Your task to perform on an android device: star an email in the gmail app Image 0: 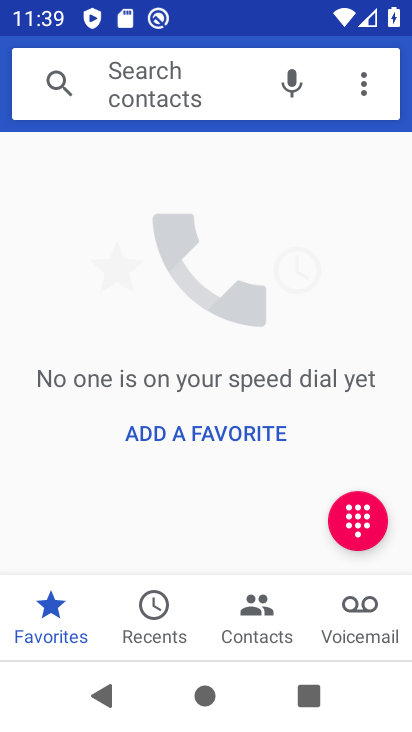
Step 0: drag from (354, 567) to (383, 165)
Your task to perform on an android device: star an email in the gmail app Image 1: 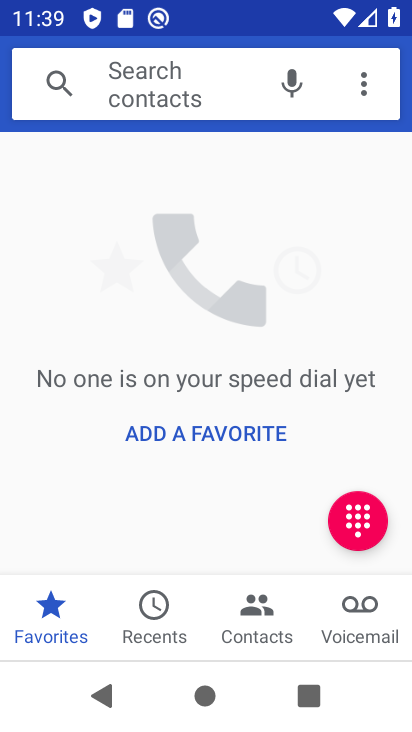
Step 1: press home button
Your task to perform on an android device: star an email in the gmail app Image 2: 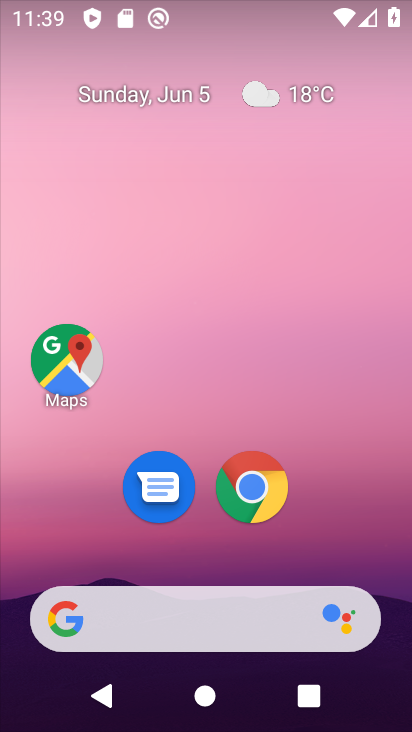
Step 2: drag from (356, 538) to (326, 148)
Your task to perform on an android device: star an email in the gmail app Image 3: 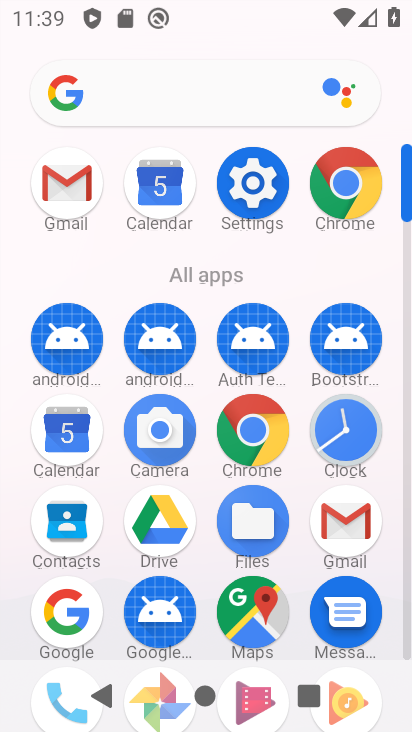
Step 3: click (335, 546)
Your task to perform on an android device: star an email in the gmail app Image 4: 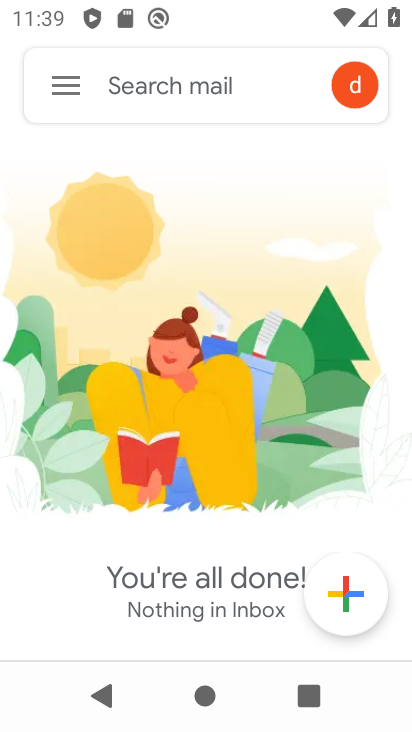
Step 4: click (60, 93)
Your task to perform on an android device: star an email in the gmail app Image 5: 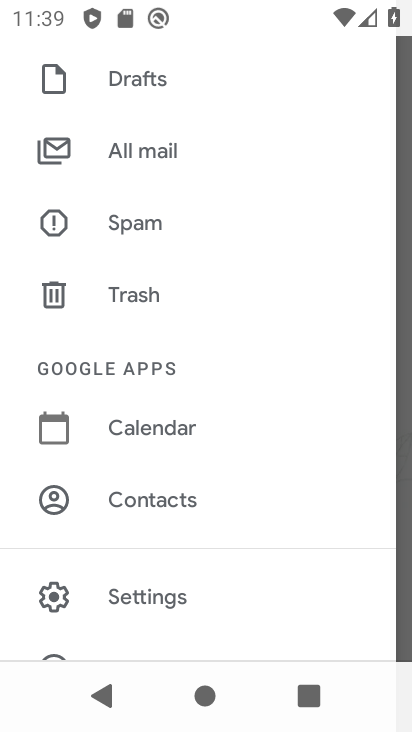
Step 5: drag from (174, 240) to (201, 547)
Your task to perform on an android device: star an email in the gmail app Image 6: 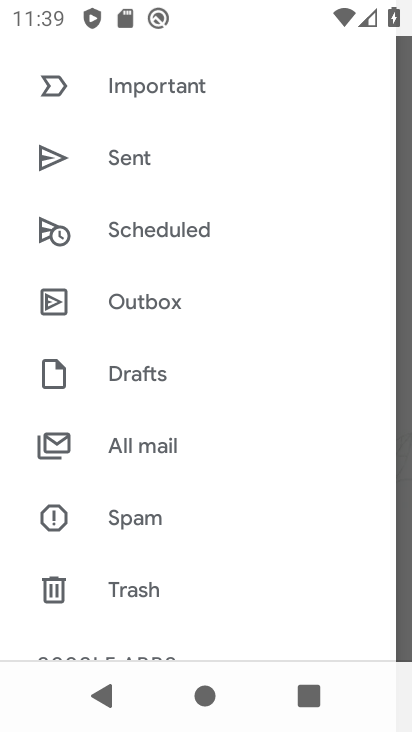
Step 6: click (160, 467)
Your task to perform on an android device: star an email in the gmail app Image 7: 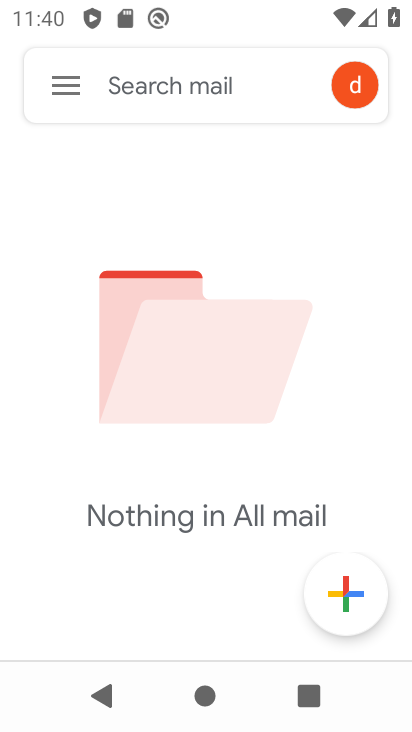
Step 7: task complete